Your task to perform on an android device: Search for Italian restaurants on Maps Image 0: 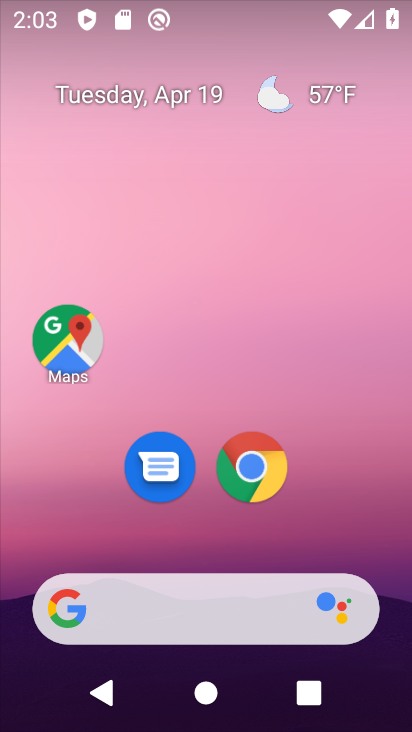
Step 0: click (74, 333)
Your task to perform on an android device: Search for Italian restaurants on Maps Image 1: 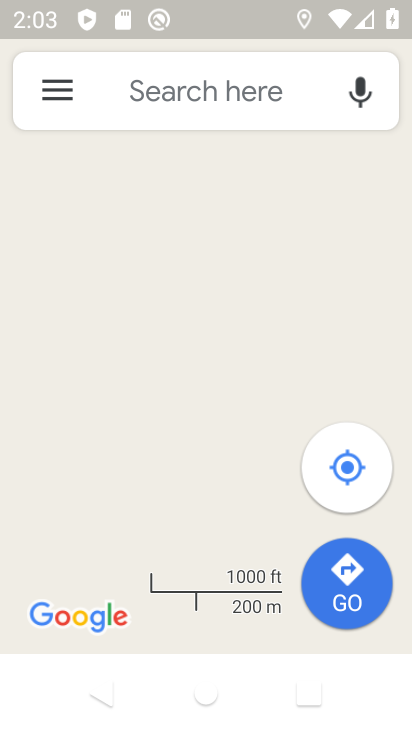
Step 1: click (120, 93)
Your task to perform on an android device: Search for Italian restaurants on Maps Image 2: 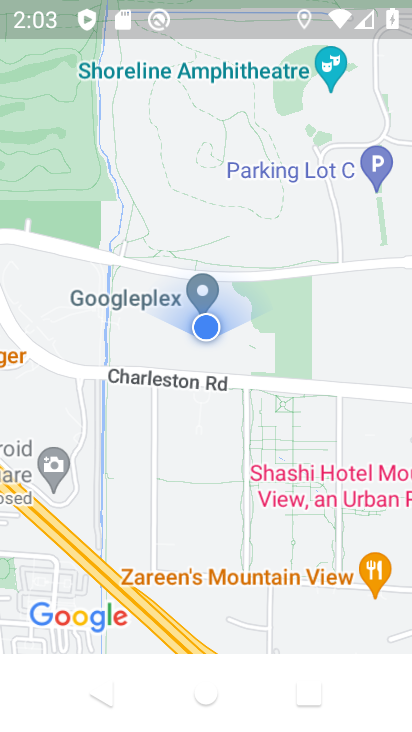
Step 2: drag from (172, 216) to (149, 562)
Your task to perform on an android device: Search for Italian restaurants on Maps Image 3: 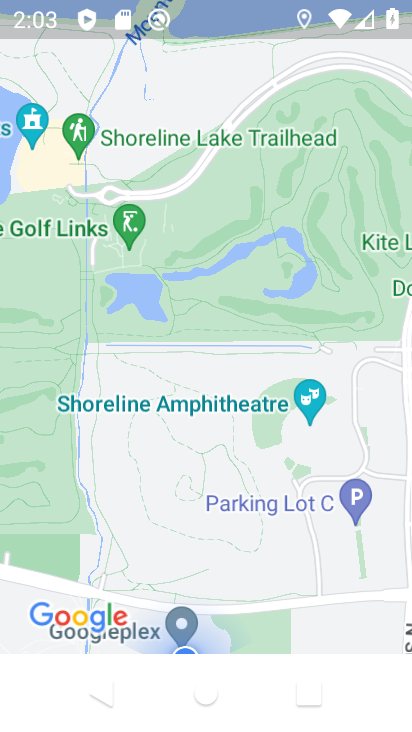
Step 3: drag from (193, 272) to (196, 389)
Your task to perform on an android device: Search for Italian restaurants on Maps Image 4: 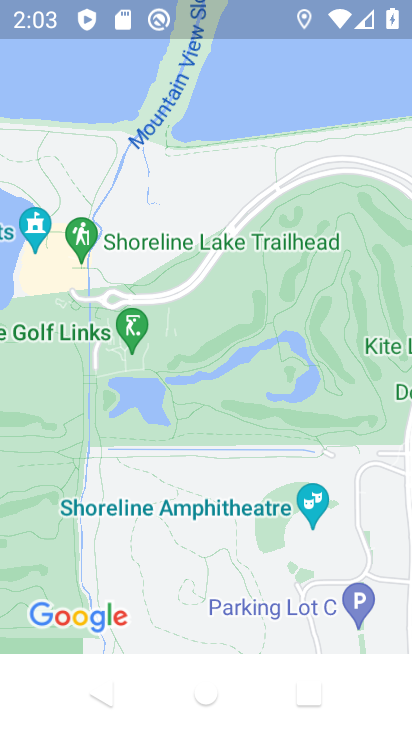
Step 4: drag from (210, 367) to (198, 471)
Your task to perform on an android device: Search for Italian restaurants on Maps Image 5: 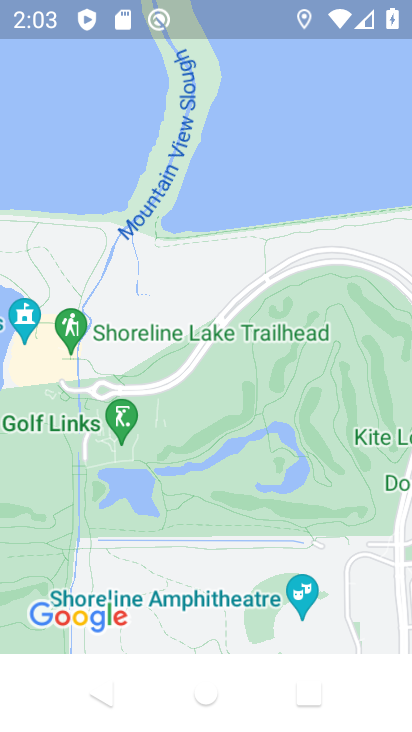
Step 5: drag from (144, 257) to (315, 552)
Your task to perform on an android device: Search for Italian restaurants on Maps Image 6: 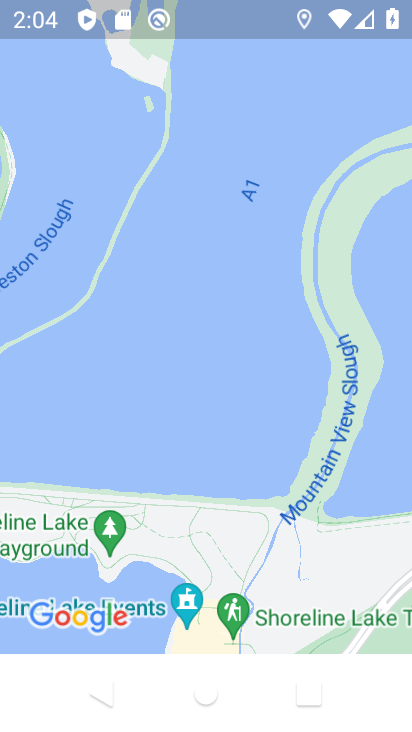
Step 6: press back button
Your task to perform on an android device: Search for Italian restaurants on Maps Image 7: 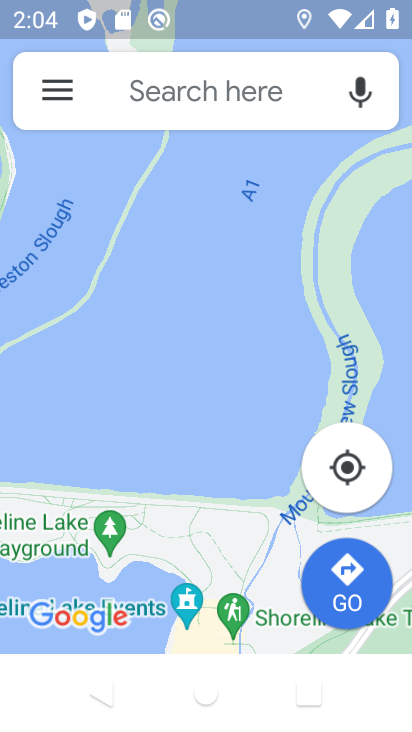
Step 7: click (199, 87)
Your task to perform on an android device: Search for Italian restaurants on Maps Image 8: 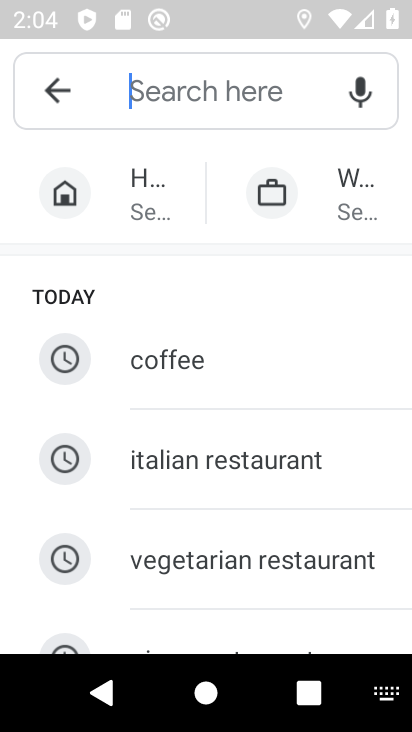
Step 8: type "italian restaurants"
Your task to perform on an android device: Search for Italian restaurants on Maps Image 9: 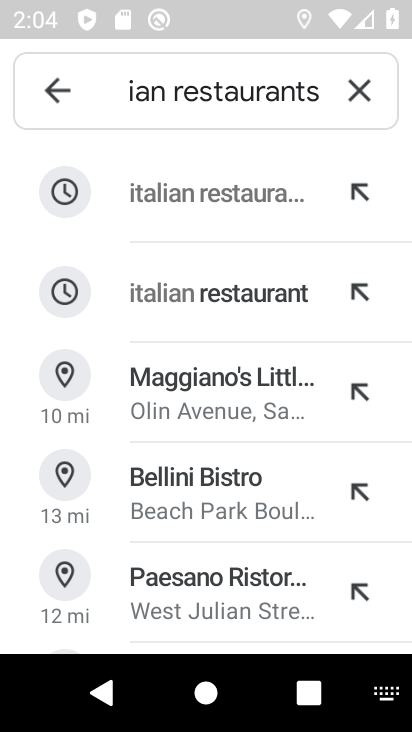
Step 9: click (216, 199)
Your task to perform on an android device: Search for Italian restaurants on Maps Image 10: 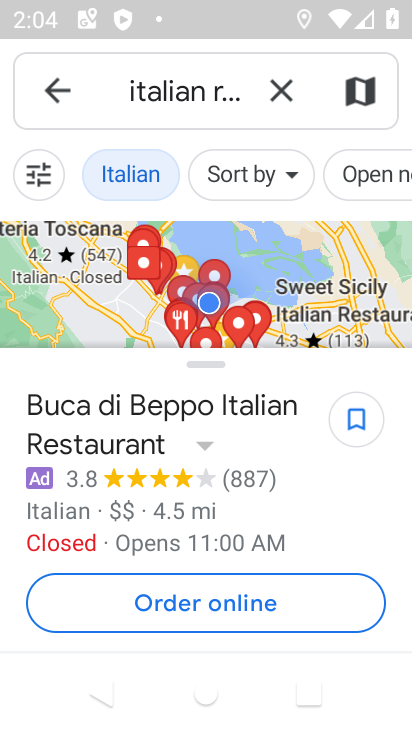
Step 10: task complete